Your task to perform on an android device: see creations saved in the google photos Image 0: 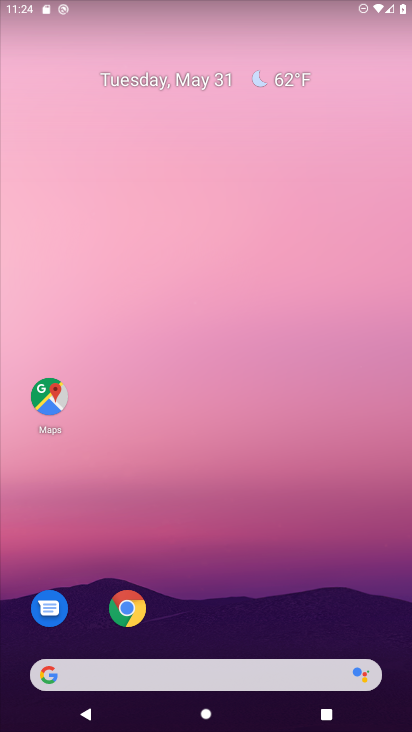
Step 0: drag from (347, 584) to (320, 146)
Your task to perform on an android device: see creations saved in the google photos Image 1: 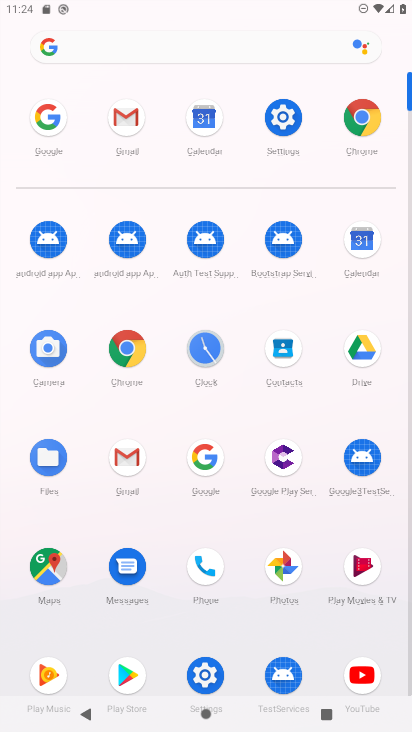
Step 1: click (285, 592)
Your task to perform on an android device: see creations saved in the google photos Image 2: 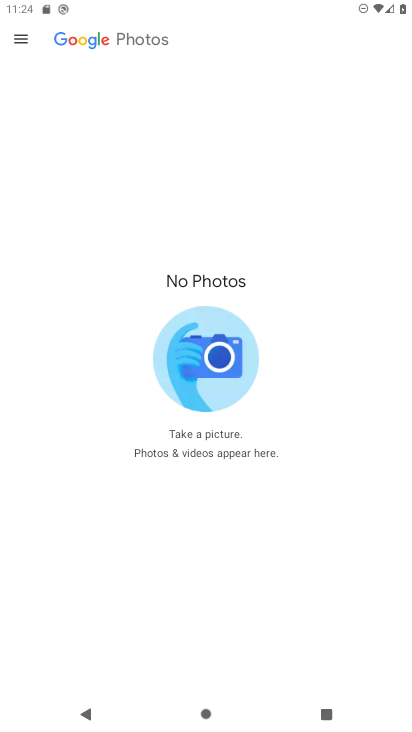
Step 2: click (18, 35)
Your task to perform on an android device: see creations saved in the google photos Image 3: 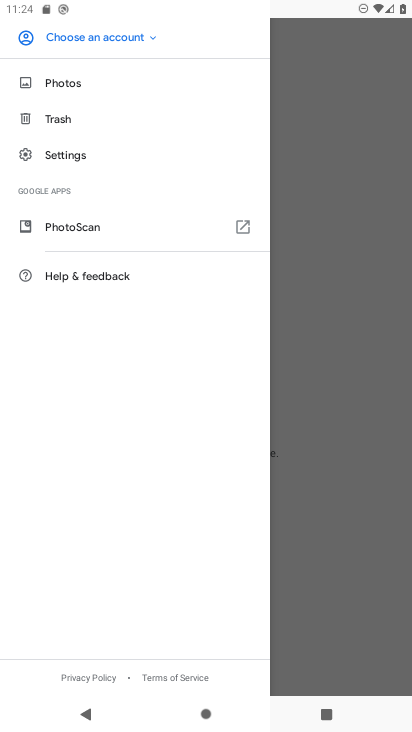
Step 3: click (52, 164)
Your task to perform on an android device: see creations saved in the google photos Image 4: 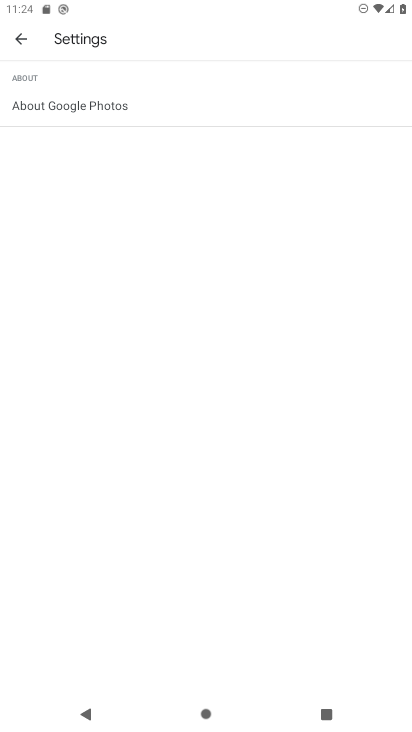
Step 4: click (19, 36)
Your task to perform on an android device: see creations saved in the google photos Image 5: 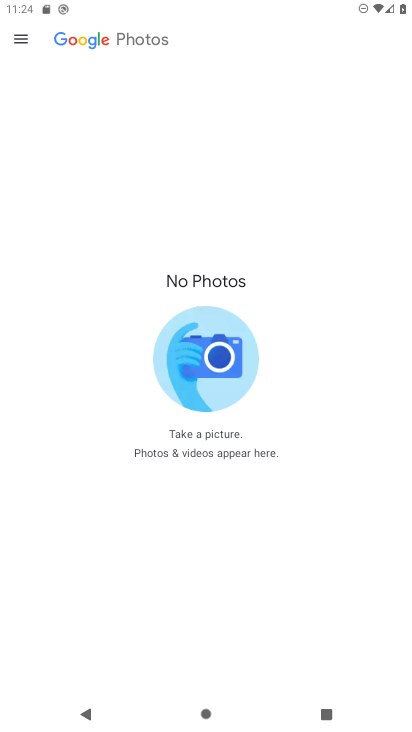
Step 5: click (21, 37)
Your task to perform on an android device: see creations saved in the google photos Image 6: 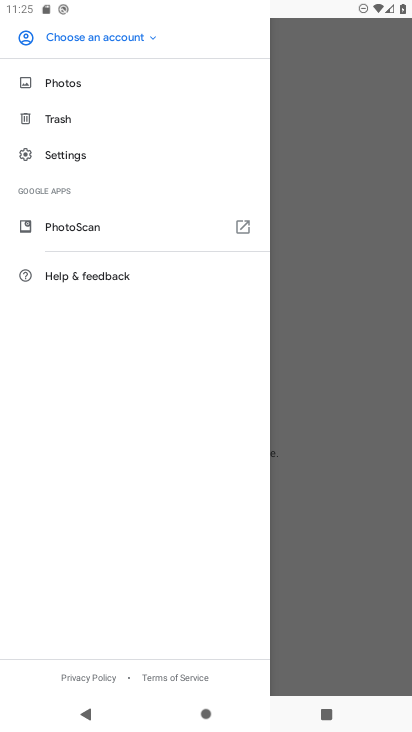
Step 6: click (301, 357)
Your task to perform on an android device: see creations saved in the google photos Image 7: 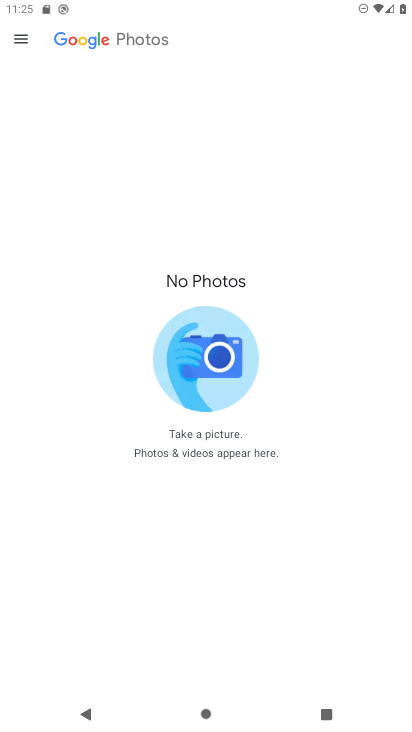
Step 7: click (124, 33)
Your task to perform on an android device: see creations saved in the google photos Image 8: 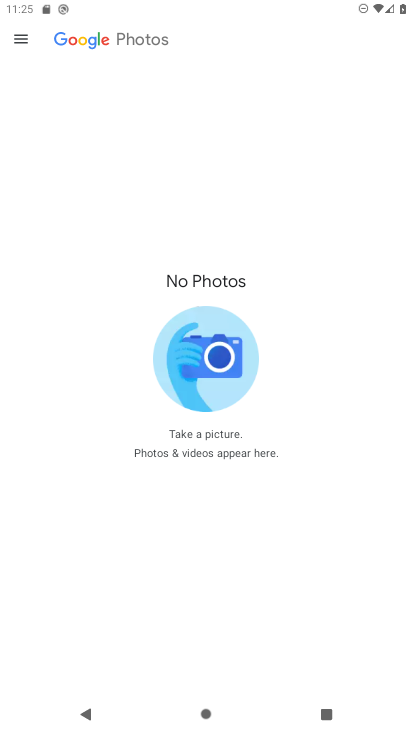
Step 8: click (170, 46)
Your task to perform on an android device: see creations saved in the google photos Image 9: 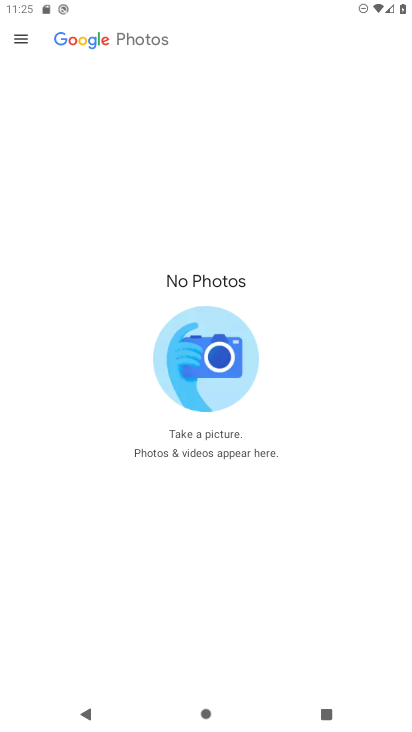
Step 9: task complete